Your task to perform on an android device: Empty the shopping cart on target.com. Add "macbook pro 13 inch" to the cart on target.com, then select checkout. Image 0: 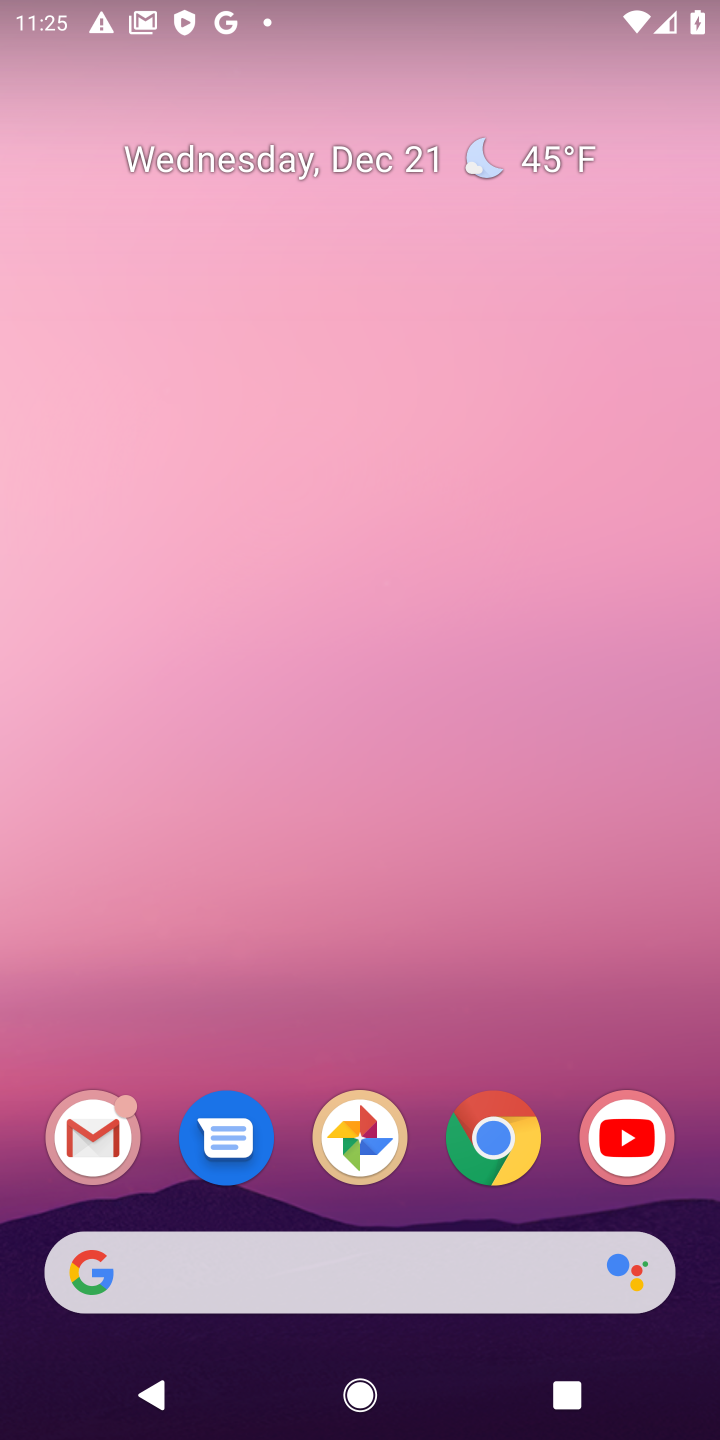
Step 0: click (495, 1144)
Your task to perform on an android device: Empty the shopping cart on target.com. Add "macbook pro 13 inch" to the cart on target.com, then select checkout. Image 1: 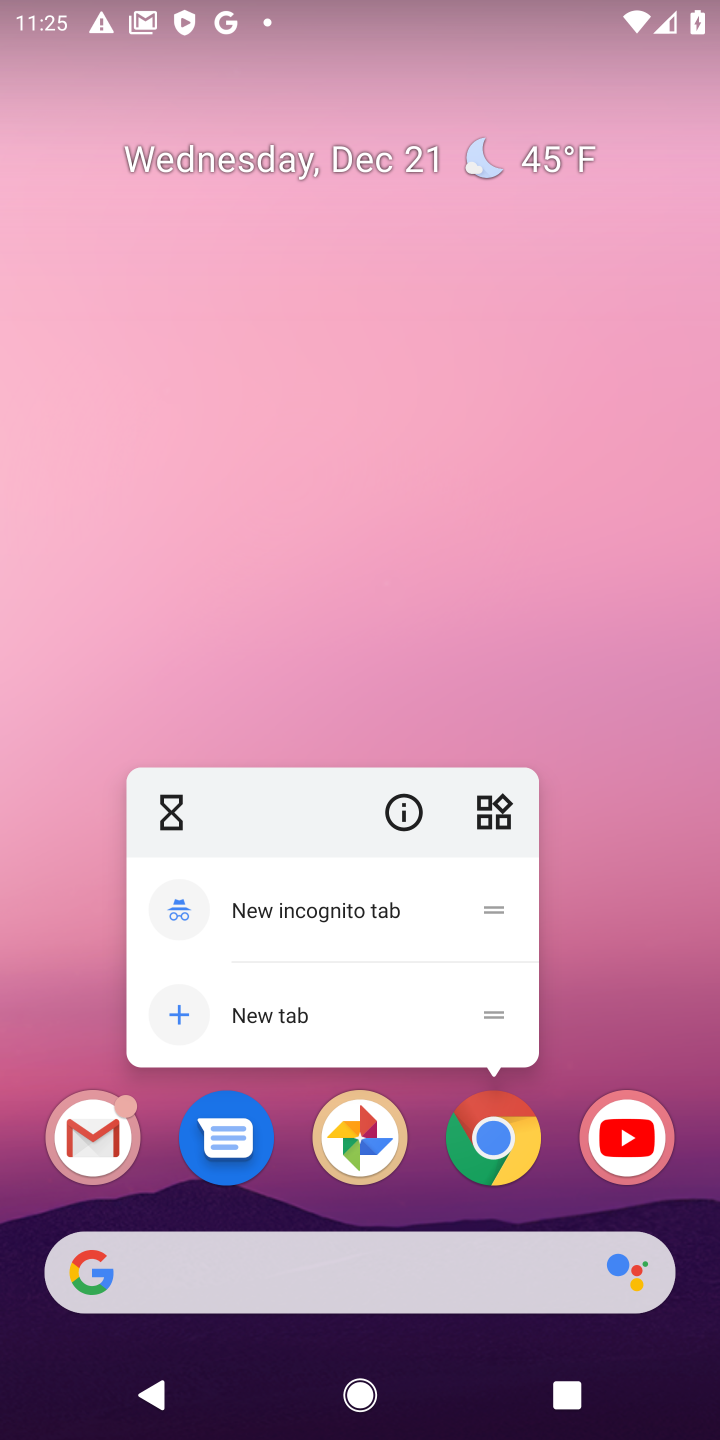
Step 1: click (493, 1144)
Your task to perform on an android device: Empty the shopping cart on target.com. Add "macbook pro 13 inch" to the cart on target.com, then select checkout. Image 2: 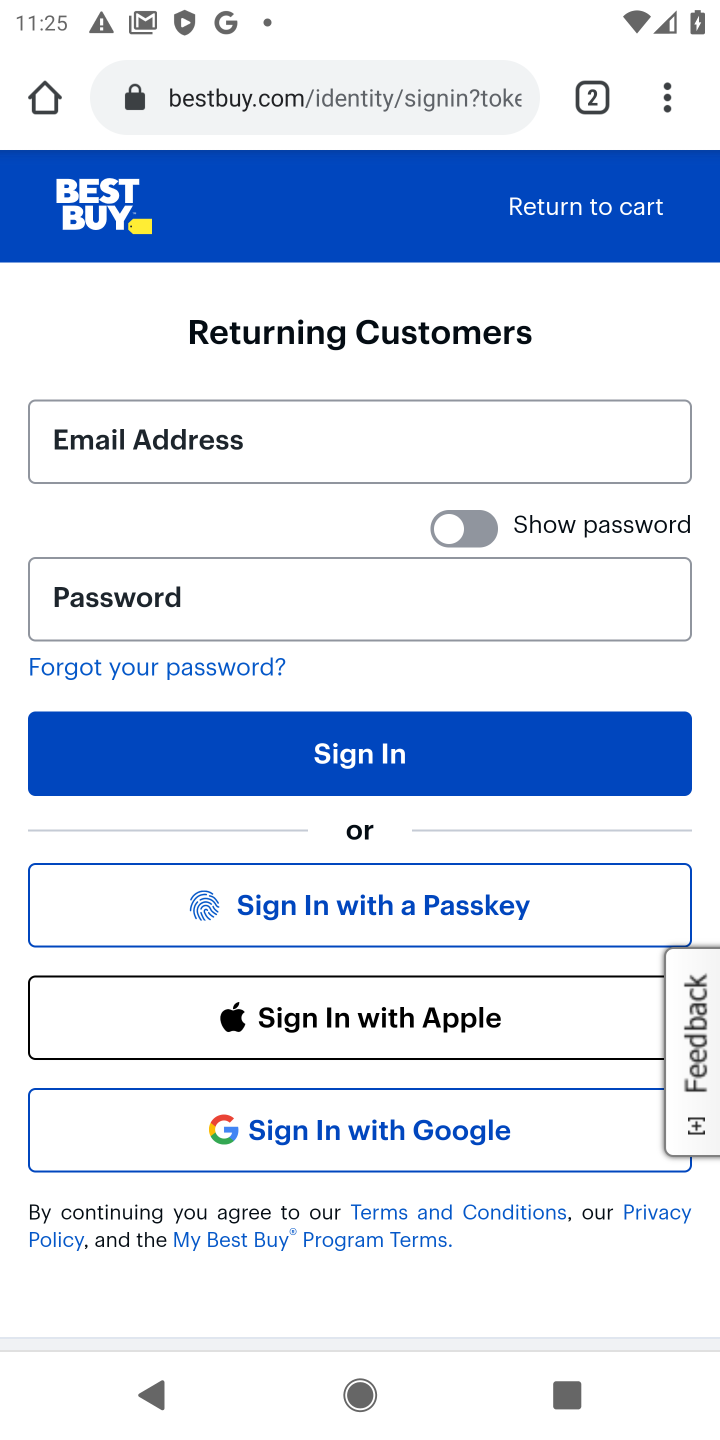
Step 2: click (269, 104)
Your task to perform on an android device: Empty the shopping cart on target.com. Add "macbook pro 13 inch" to the cart on target.com, then select checkout. Image 3: 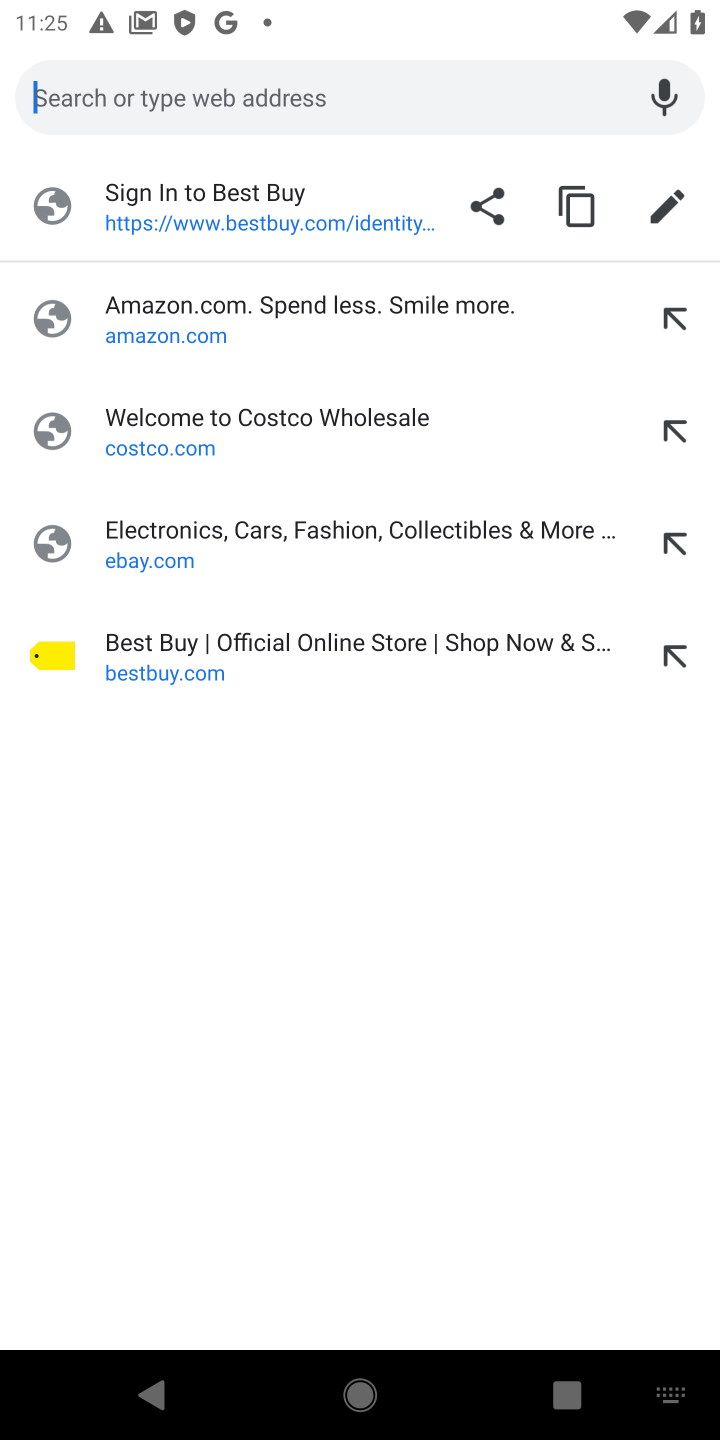
Step 3: type "target.com"
Your task to perform on an android device: Empty the shopping cart on target.com. Add "macbook pro 13 inch" to the cart on target.com, then select checkout. Image 4: 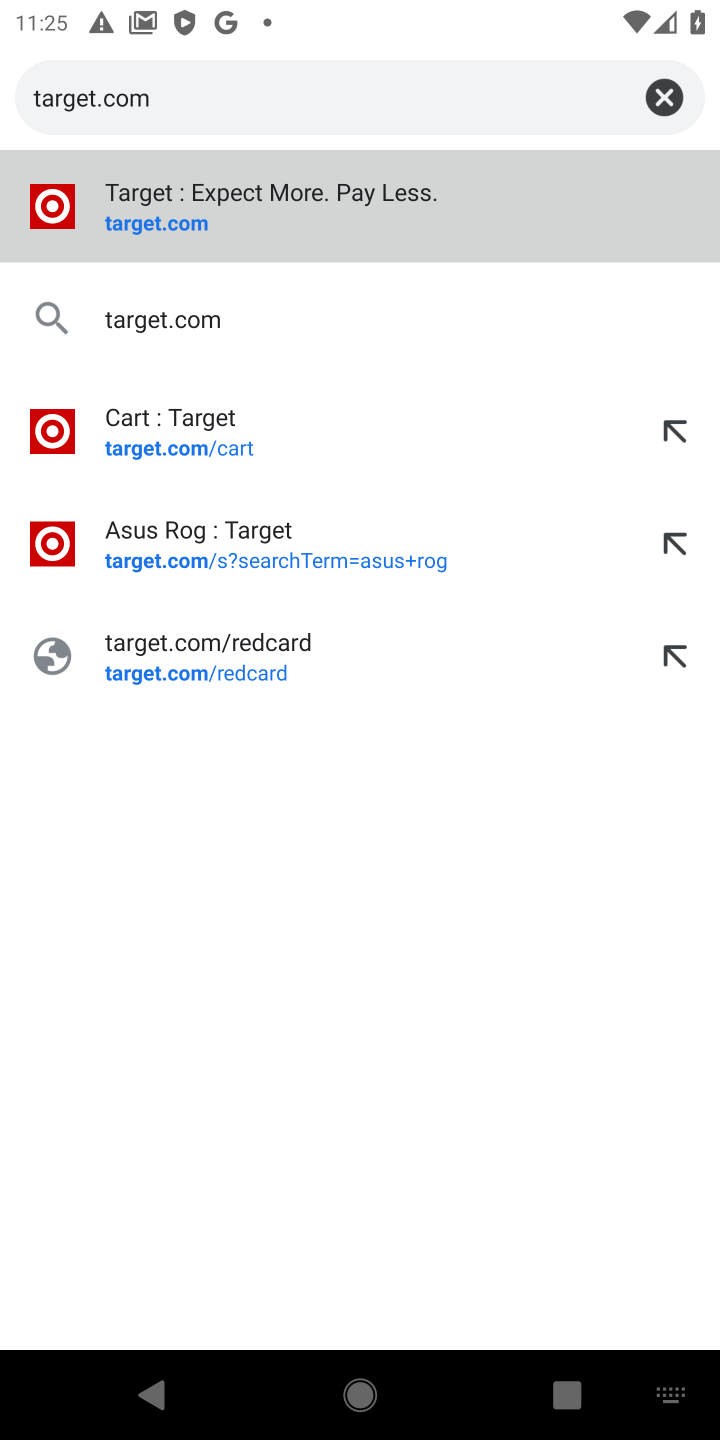
Step 4: click (155, 233)
Your task to perform on an android device: Empty the shopping cart on target.com. Add "macbook pro 13 inch" to the cart on target.com, then select checkout. Image 5: 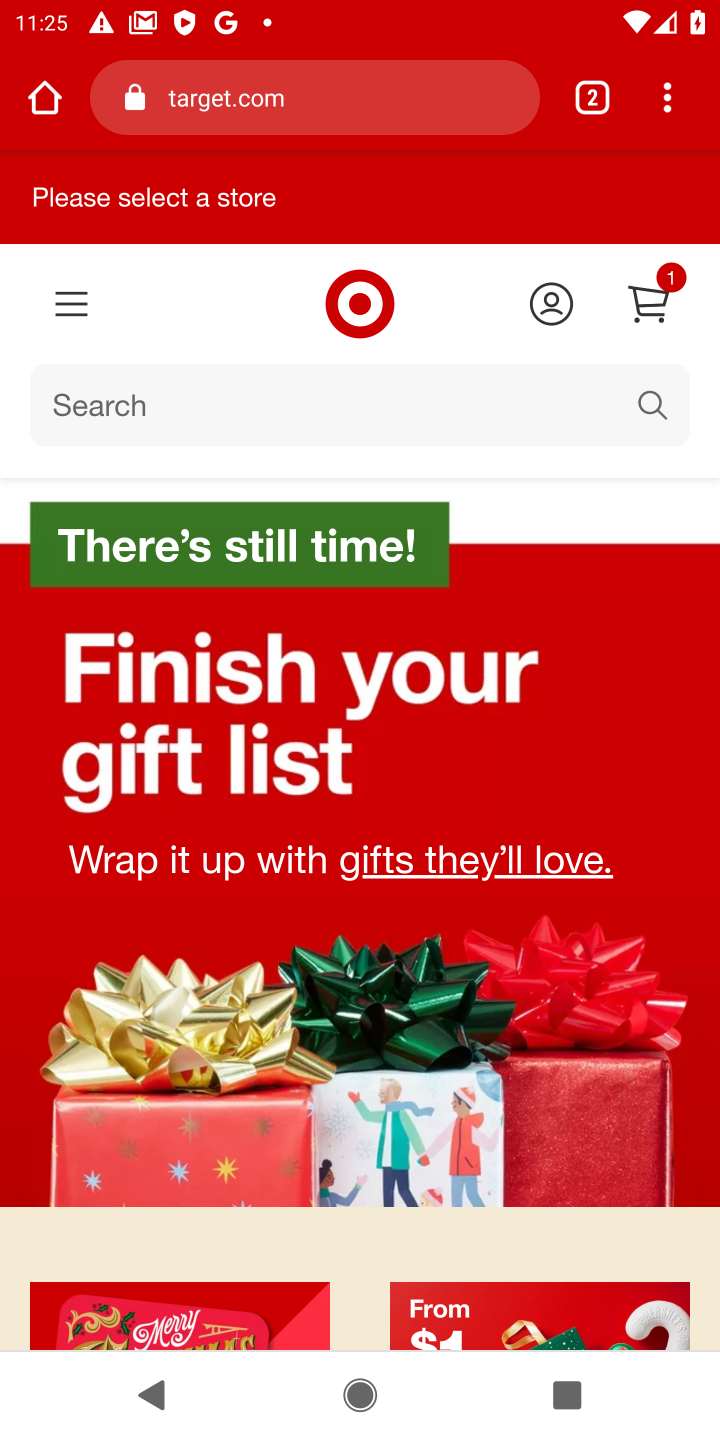
Step 5: click (653, 304)
Your task to perform on an android device: Empty the shopping cart on target.com. Add "macbook pro 13 inch" to the cart on target.com, then select checkout. Image 6: 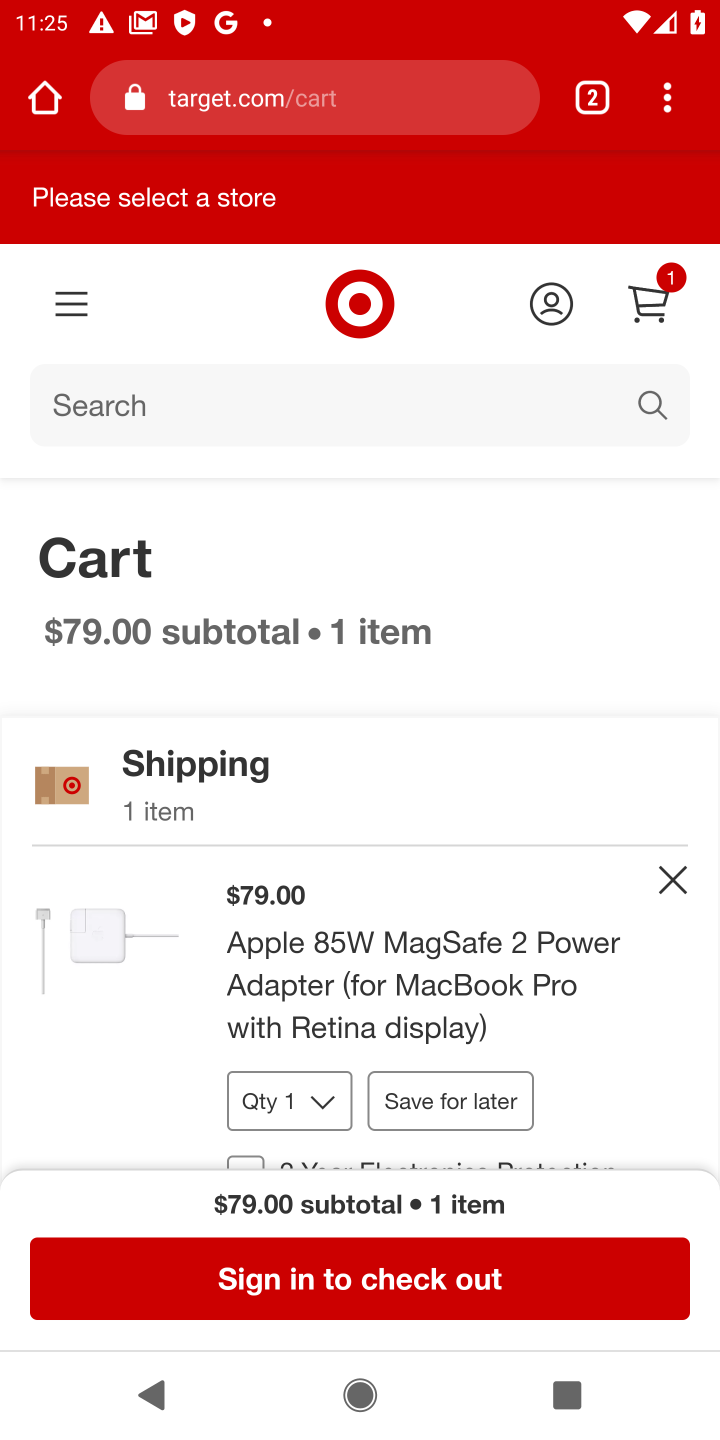
Step 6: click (681, 878)
Your task to perform on an android device: Empty the shopping cart on target.com. Add "macbook pro 13 inch" to the cart on target.com, then select checkout. Image 7: 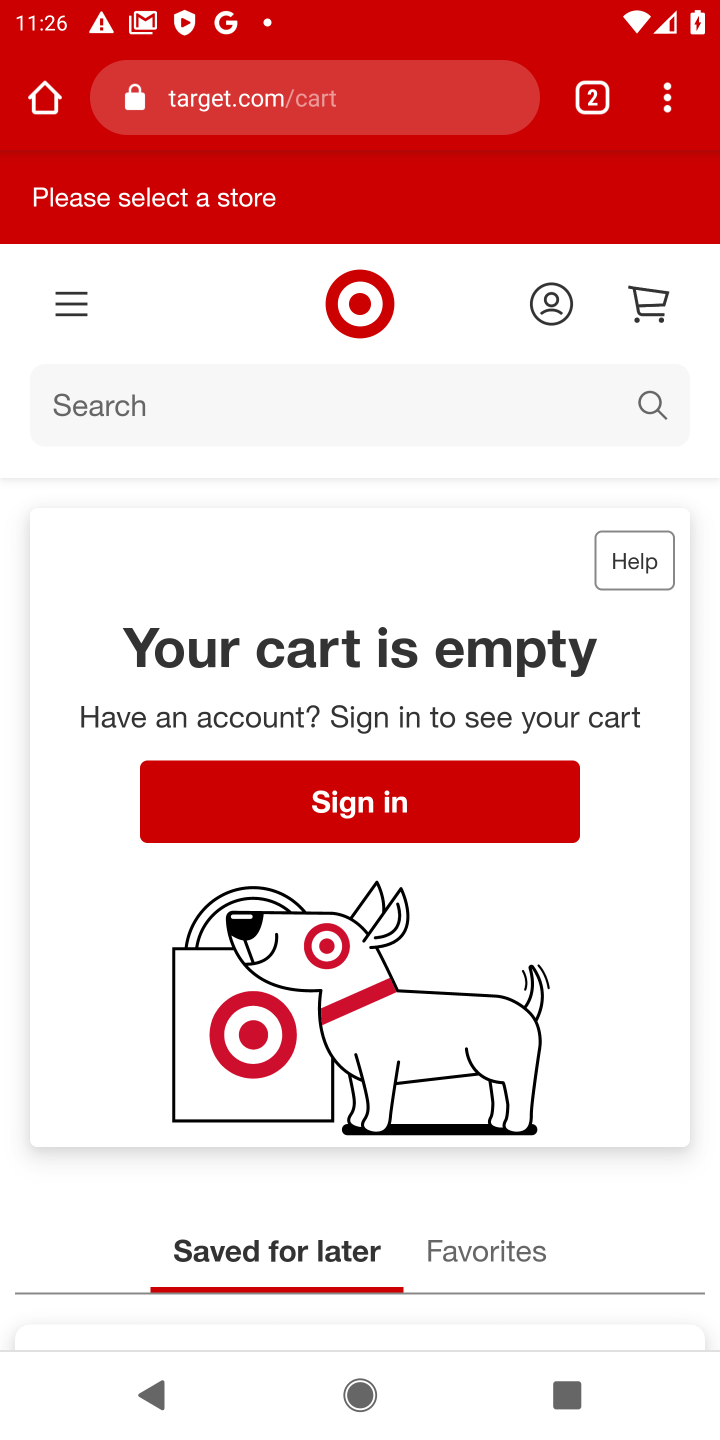
Step 7: click (83, 400)
Your task to perform on an android device: Empty the shopping cart on target.com. Add "macbook pro 13 inch" to the cart on target.com, then select checkout. Image 8: 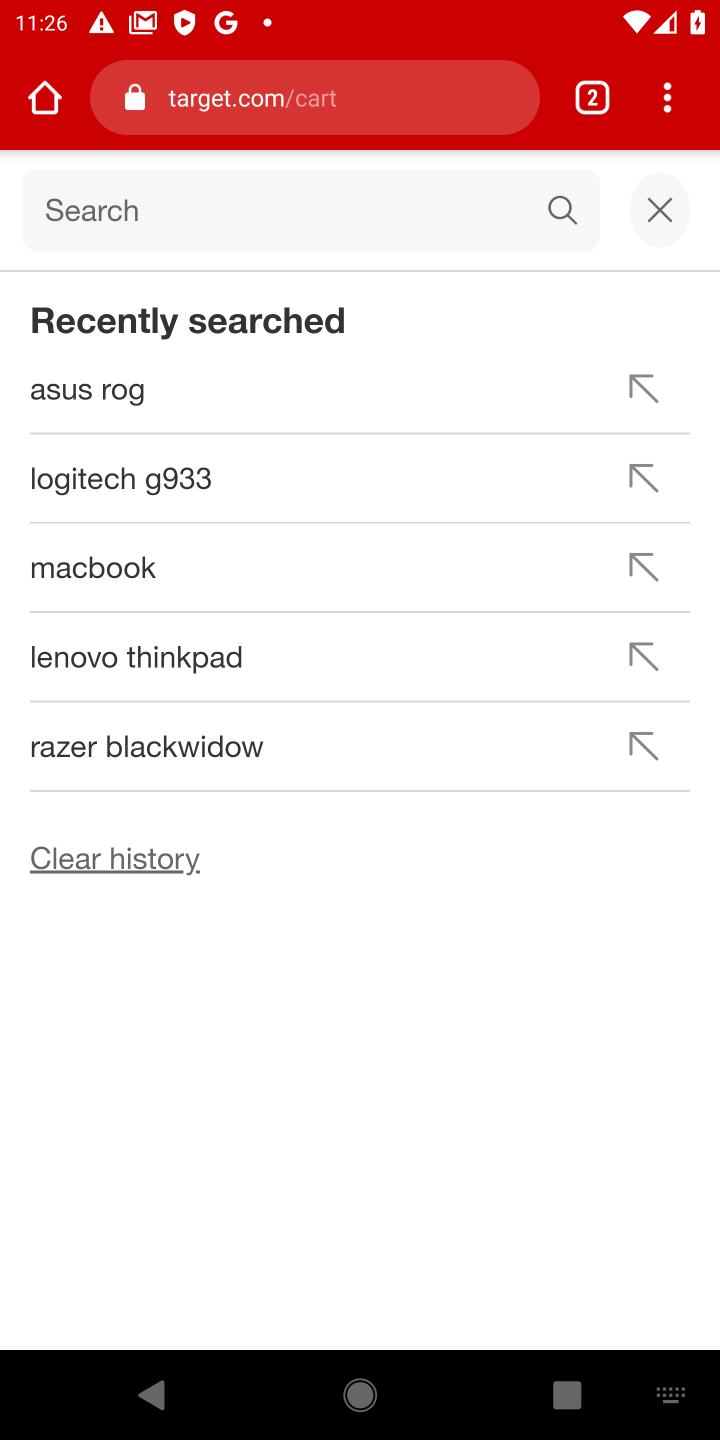
Step 8: type "macbook pro 13 inch"
Your task to perform on an android device: Empty the shopping cart on target.com. Add "macbook pro 13 inch" to the cart on target.com, then select checkout. Image 9: 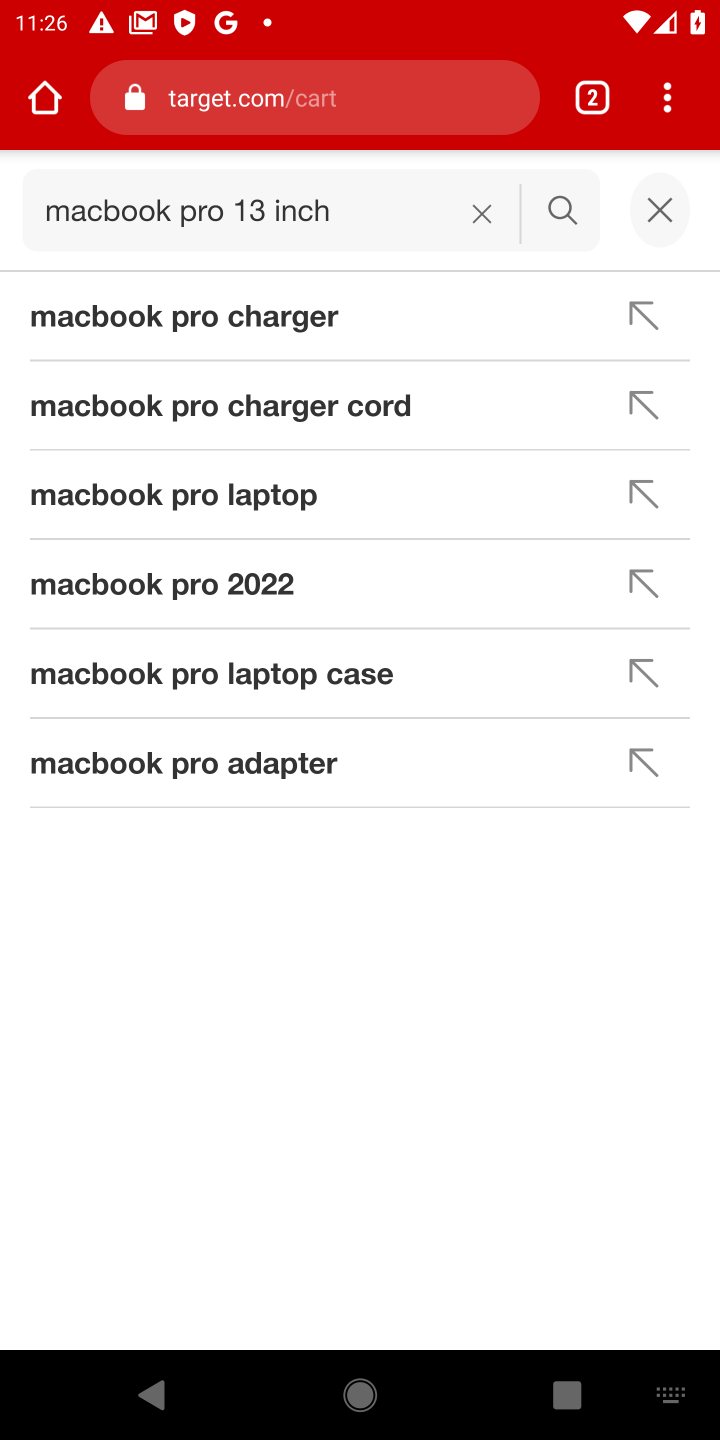
Step 9: click (575, 211)
Your task to perform on an android device: Empty the shopping cart on target.com. Add "macbook pro 13 inch" to the cart on target.com, then select checkout. Image 10: 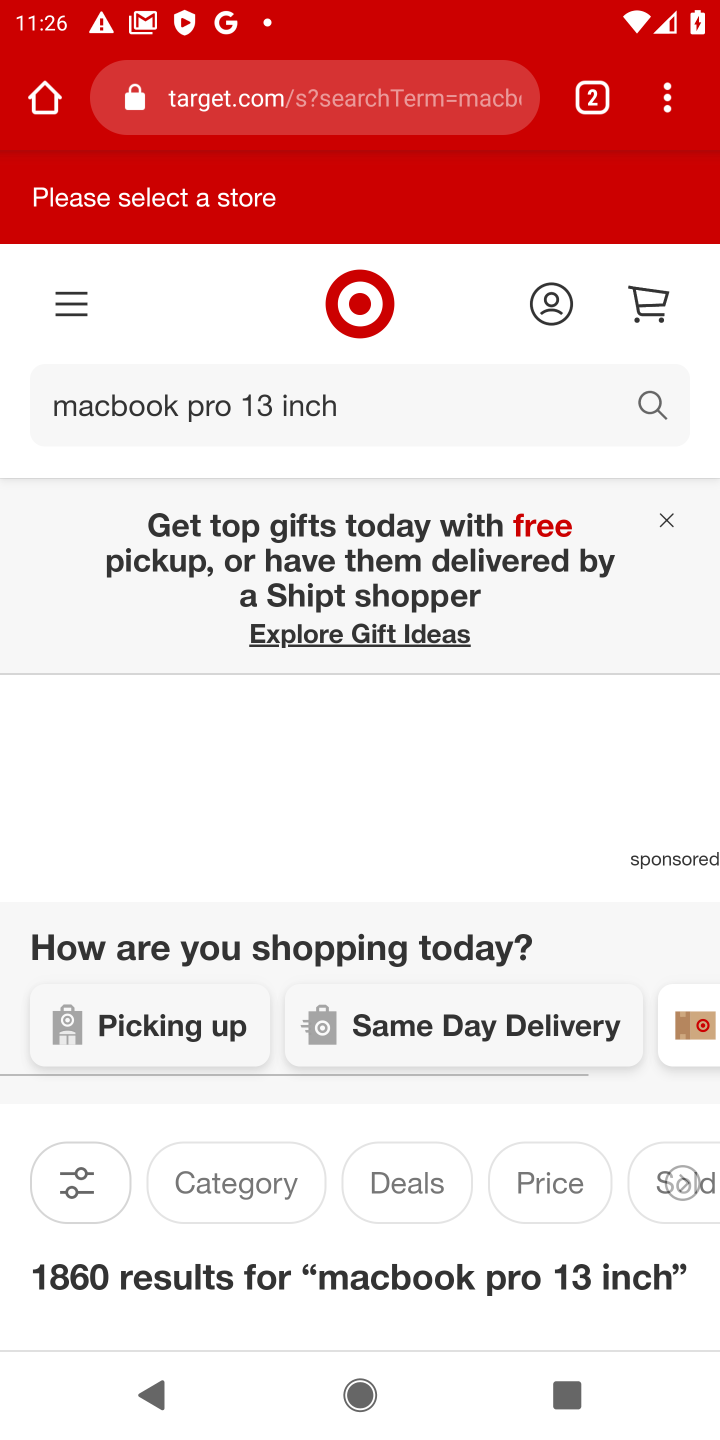
Step 10: drag from (310, 960) to (283, 455)
Your task to perform on an android device: Empty the shopping cart on target.com. Add "macbook pro 13 inch" to the cart on target.com, then select checkout. Image 11: 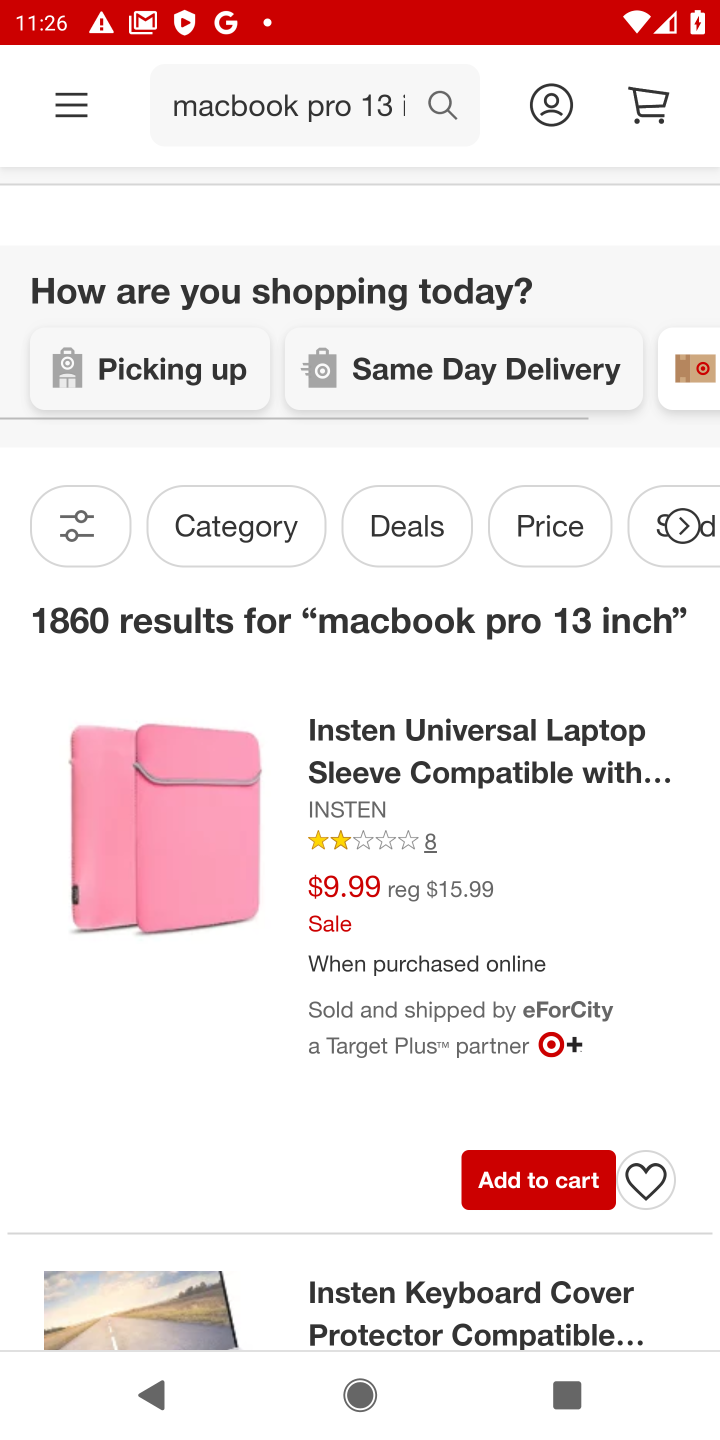
Step 11: drag from (288, 962) to (327, 508)
Your task to perform on an android device: Empty the shopping cart on target.com. Add "macbook pro 13 inch" to the cart on target.com, then select checkout. Image 12: 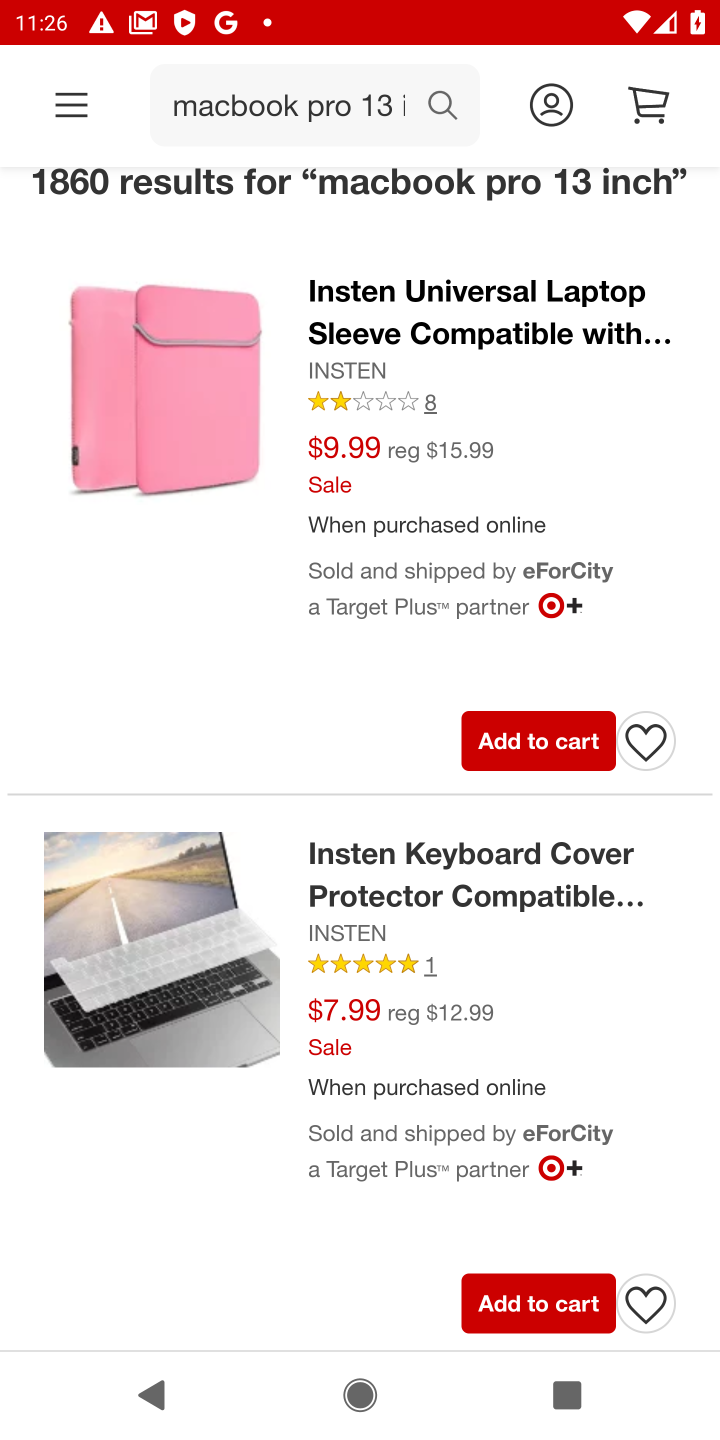
Step 12: click (443, 347)
Your task to perform on an android device: Empty the shopping cart on target.com. Add "macbook pro 13 inch" to the cart on target.com, then select checkout. Image 13: 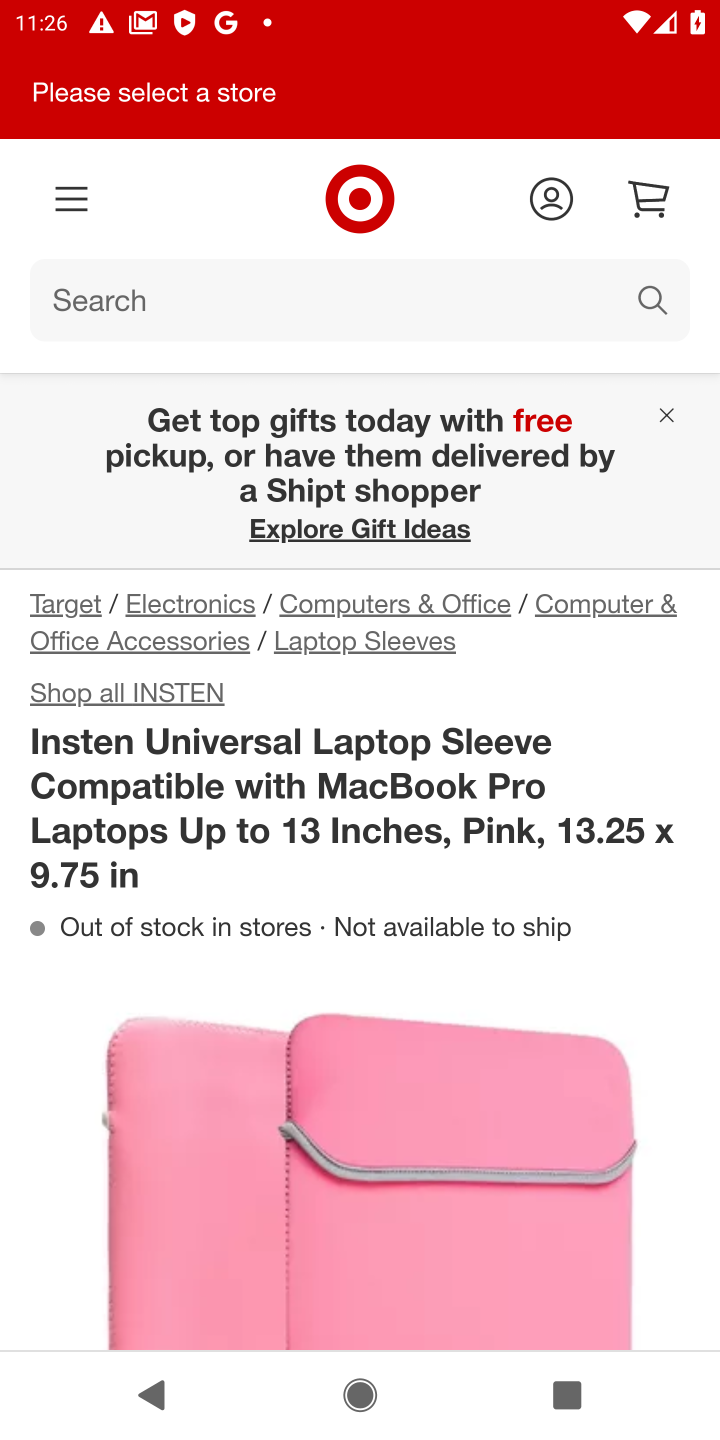
Step 13: drag from (385, 799) to (446, 482)
Your task to perform on an android device: Empty the shopping cart on target.com. Add "macbook pro 13 inch" to the cart on target.com, then select checkout. Image 14: 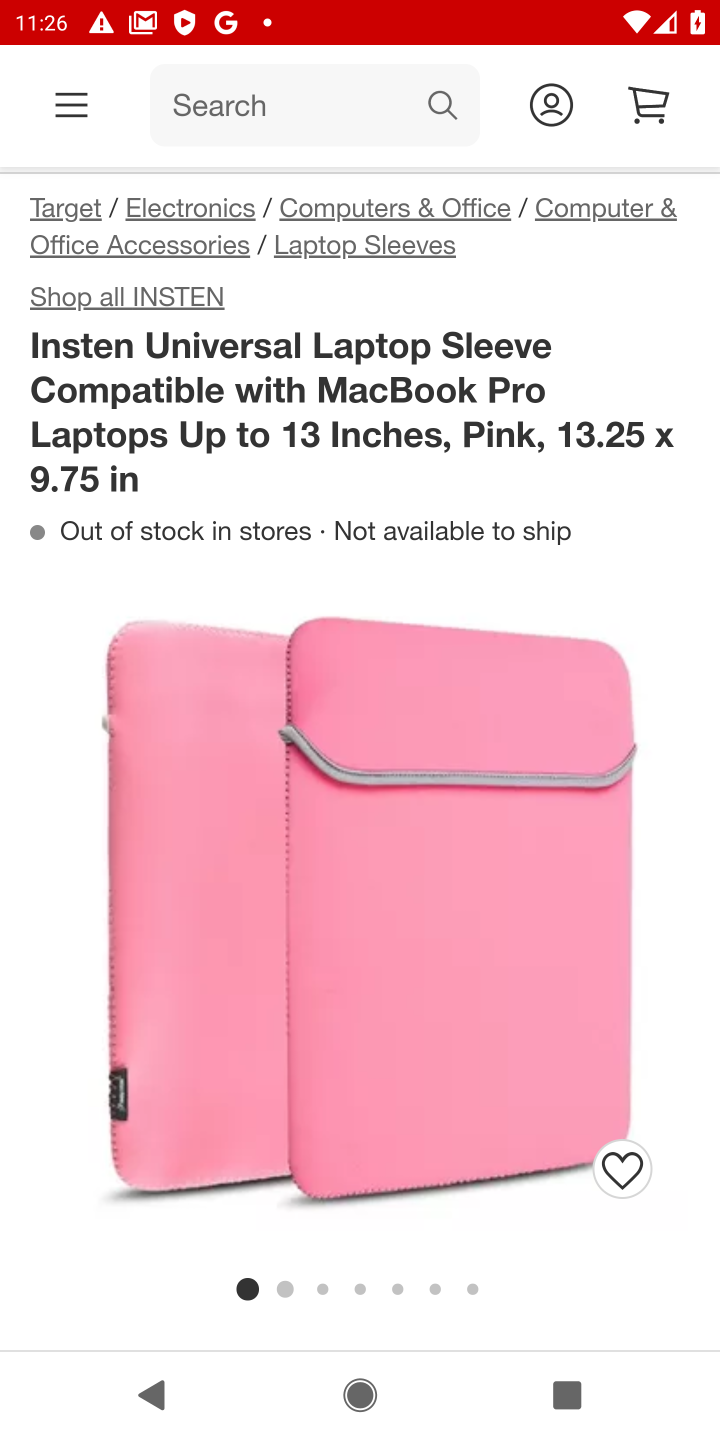
Step 14: drag from (368, 876) to (376, 371)
Your task to perform on an android device: Empty the shopping cart on target.com. Add "macbook pro 13 inch" to the cart on target.com, then select checkout. Image 15: 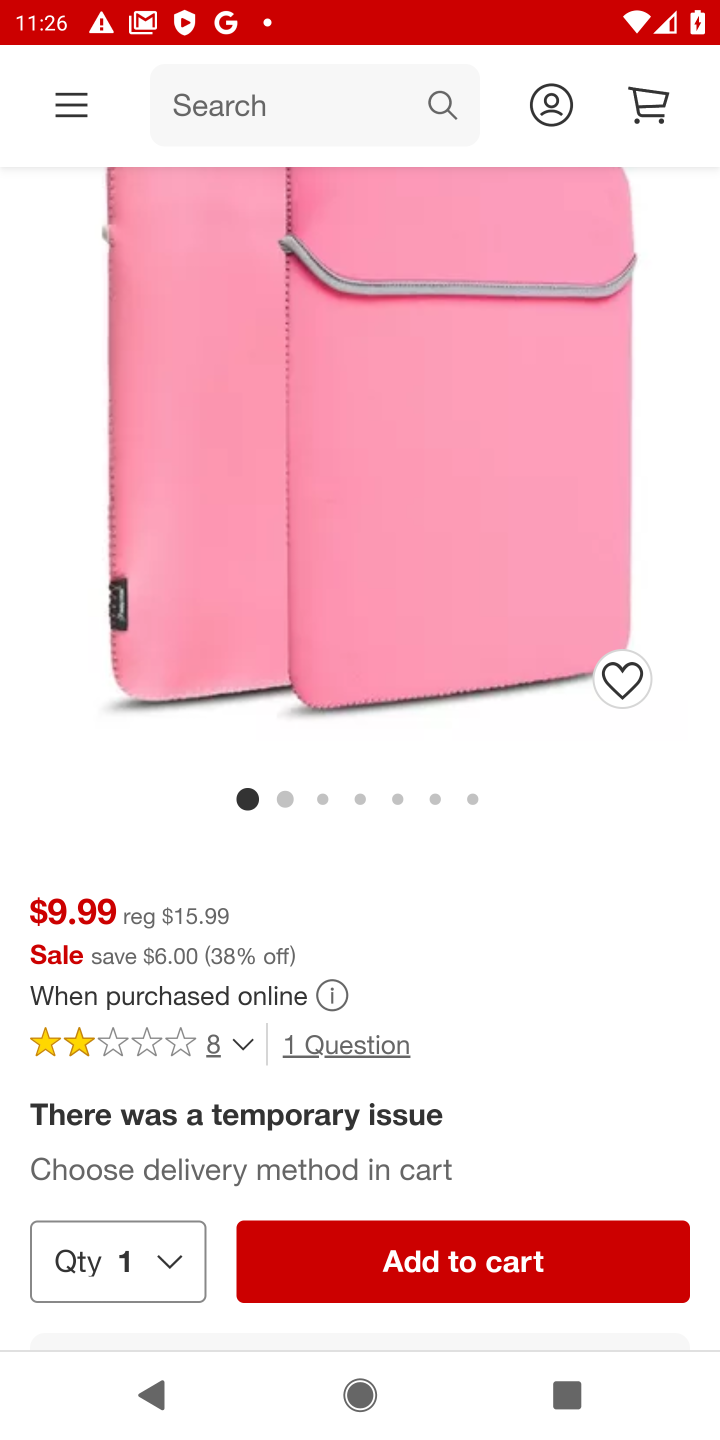
Step 15: drag from (353, 984) to (401, 637)
Your task to perform on an android device: Empty the shopping cart on target.com. Add "macbook pro 13 inch" to the cart on target.com, then select checkout. Image 16: 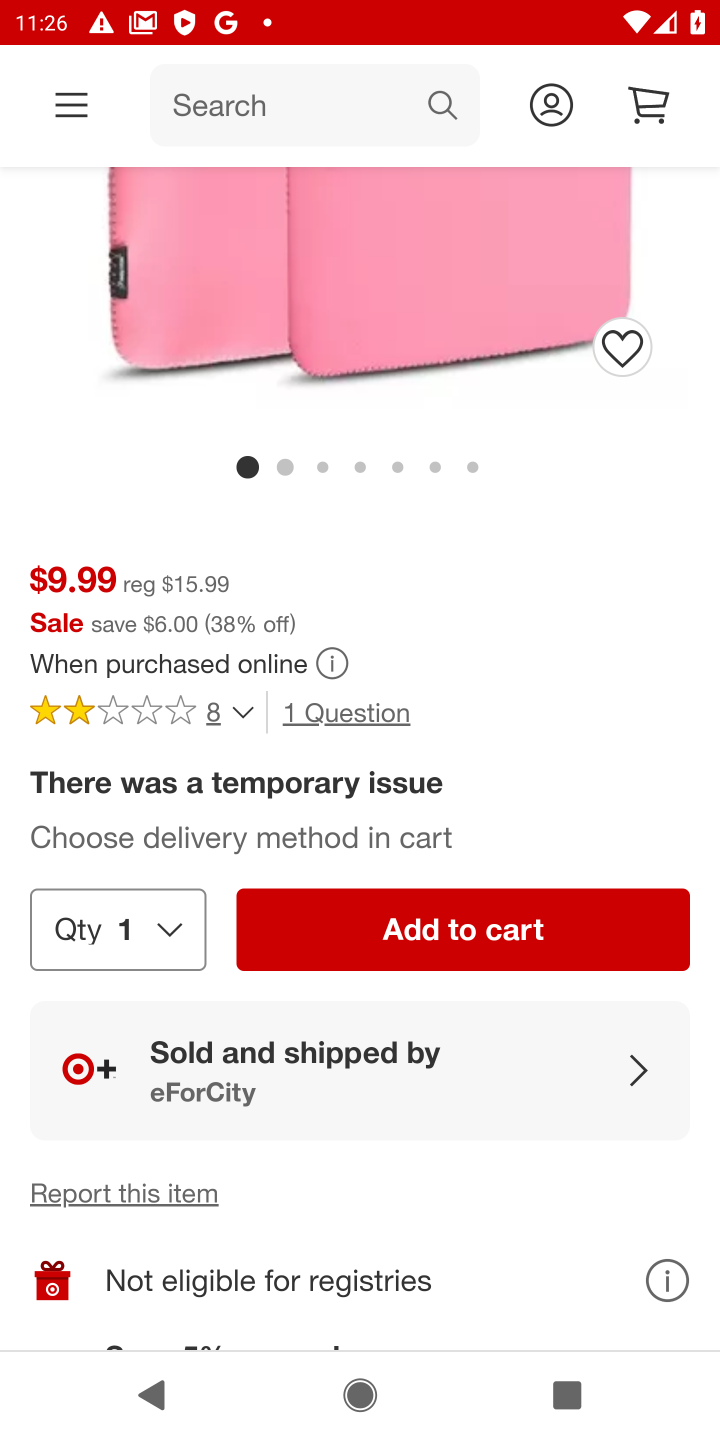
Step 16: click (435, 938)
Your task to perform on an android device: Empty the shopping cart on target.com. Add "macbook pro 13 inch" to the cart on target.com, then select checkout. Image 17: 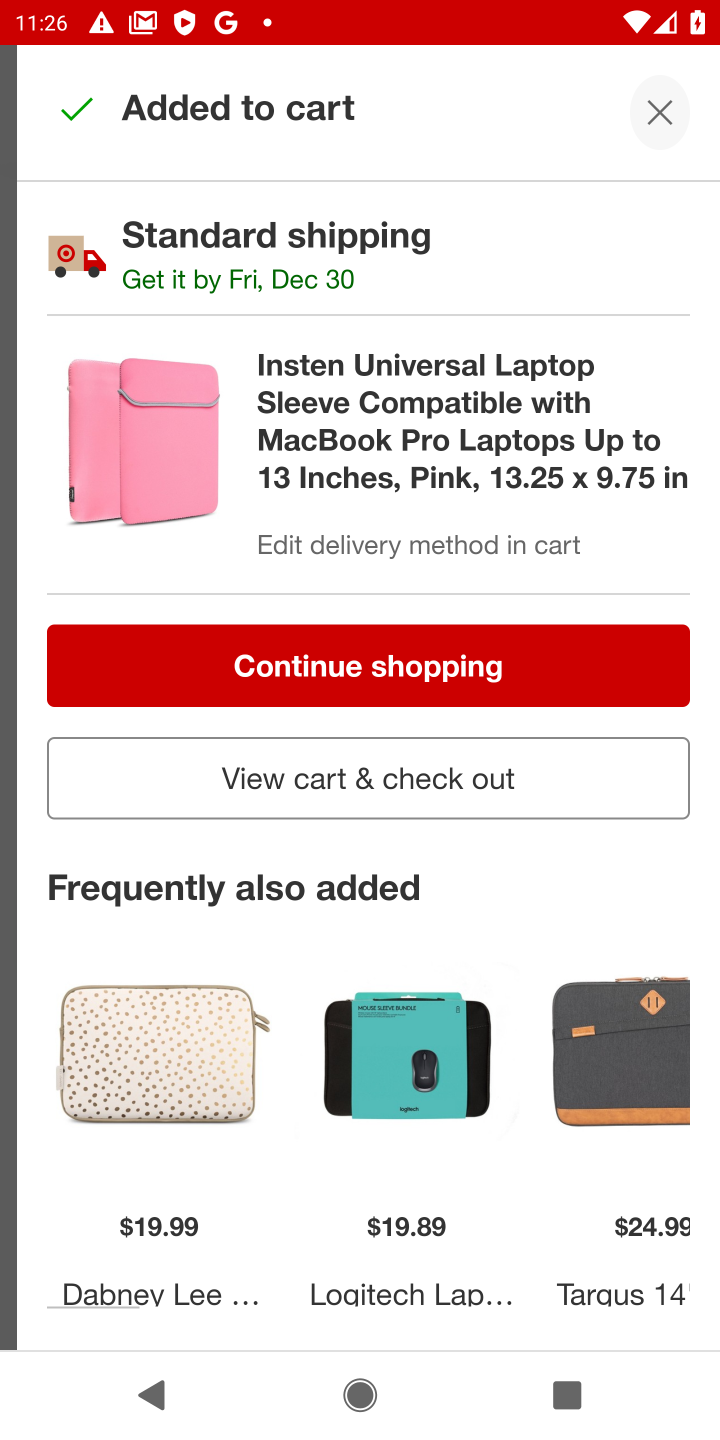
Step 17: click (355, 774)
Your task to perform on an android device: Empty the shopping cart on target.com. Add "macbook pro 13 inch" to the cart on target.com, then select checkout. Image 18: 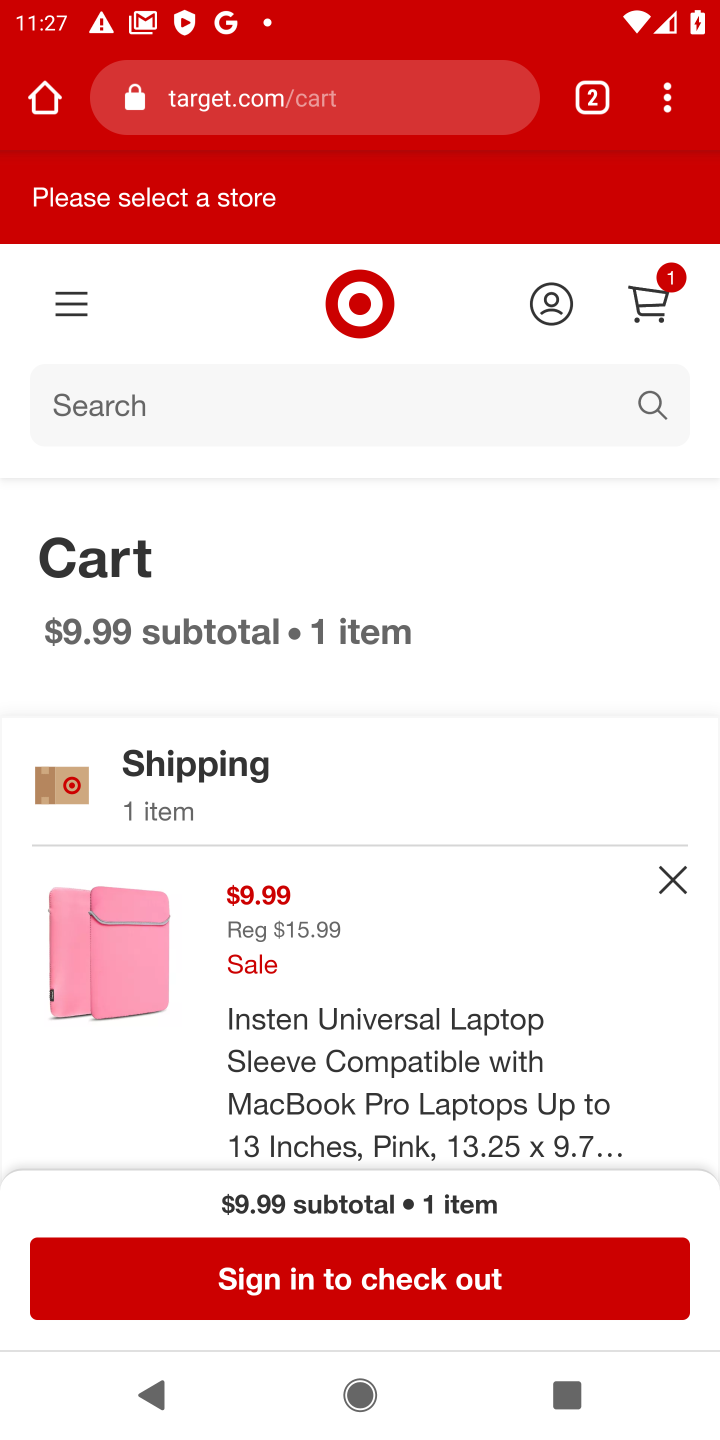
Step 18: click (406, 1282)
Your task to perform on an android device: Empty the shopping cart on target.com. Add "macbook pro 13 inch" to the cart on target.com, then select checkout. Image 19: 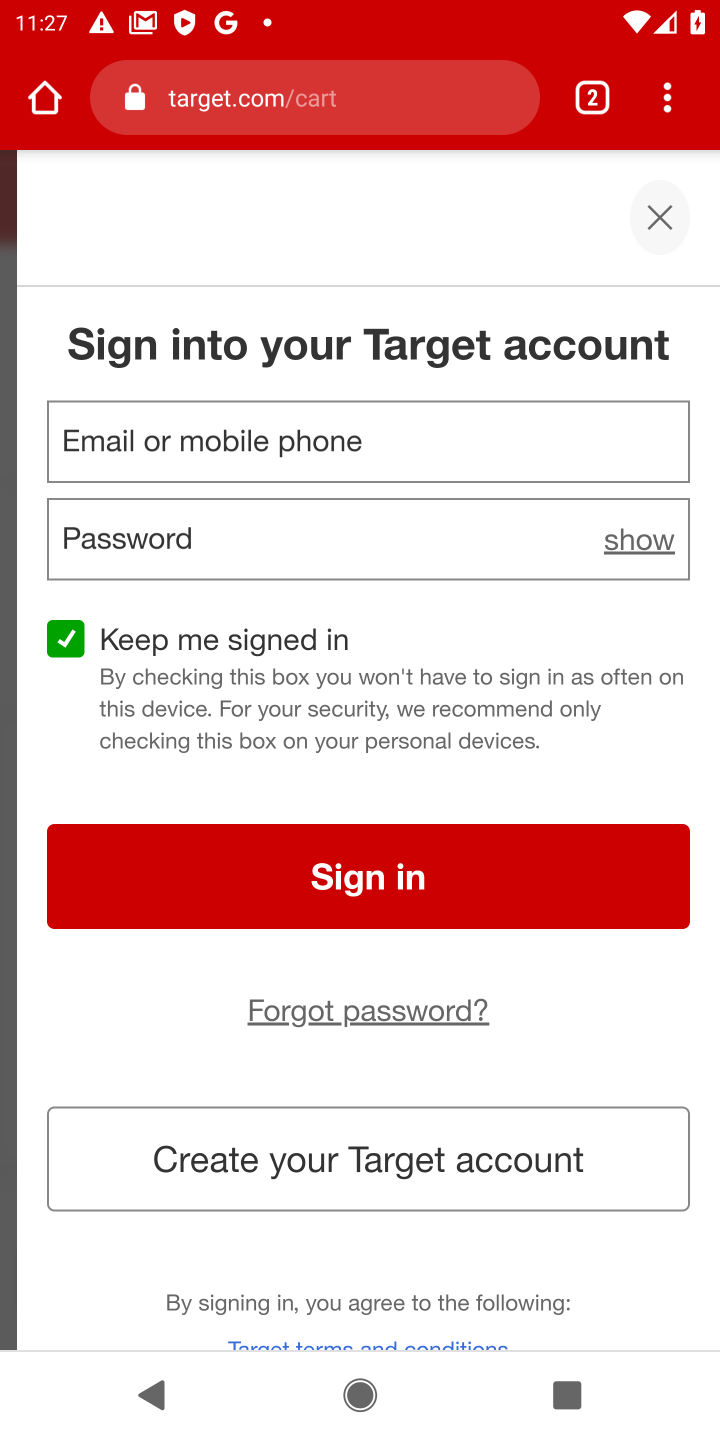
Step 19: task complete